Your task to perform on an android device: turn on javascript in the chrome app Image 0: 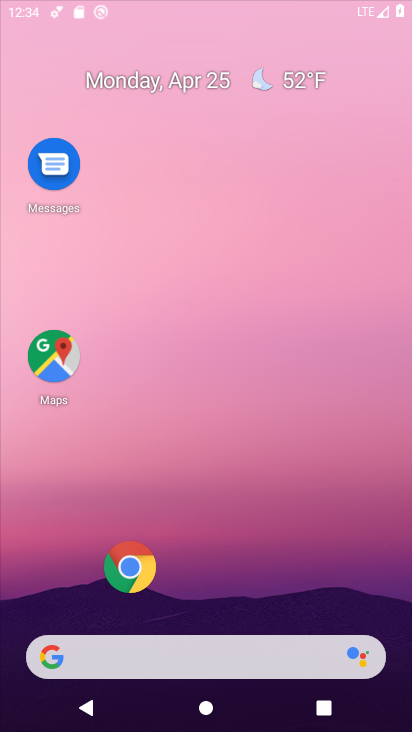
Step 0: drag from (402, 77) to (378, 1)
Your task to perform on an android device: turn on javascript in the chrome app Image 1: 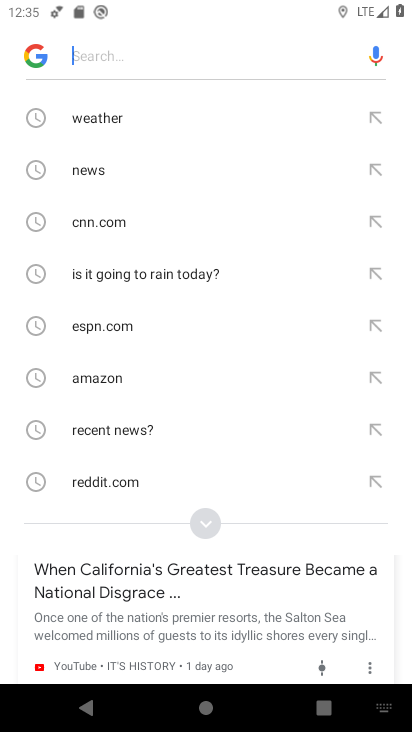
Step 1: press home button
Your task to perform on an android device: turn on javascript in the chrome app Image 2: 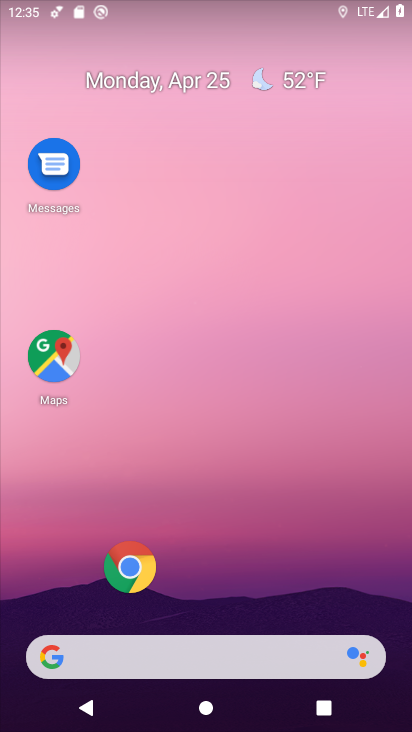
Step 2: drag from (217, 486) to (227, 148)
Your task to perform on an android device: turn on javascript in the chrome app Image 3: 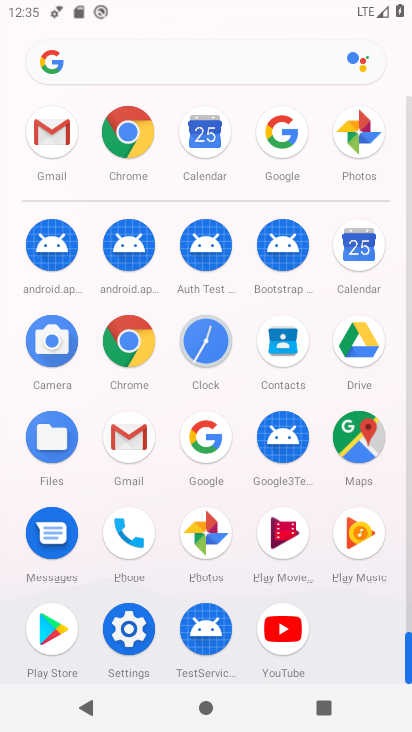
Step 3: click (122, 174)
Your task to perform on an android device: turn on javascript in the chrome app Image 4: 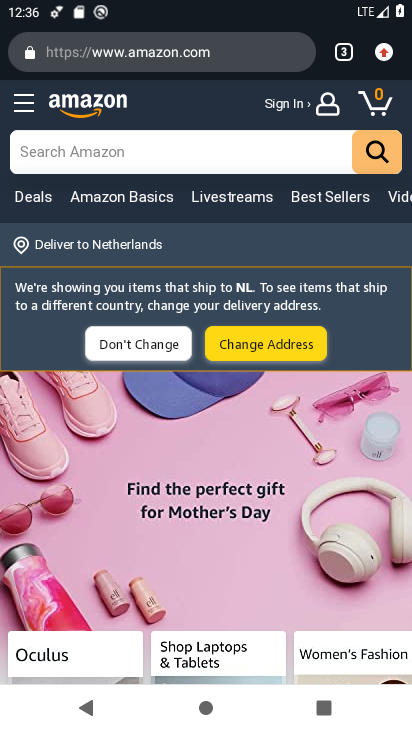
Step 4: click (380, 58)
Your task to perform on an android device: turn on javascript in the chrome app Image 5: 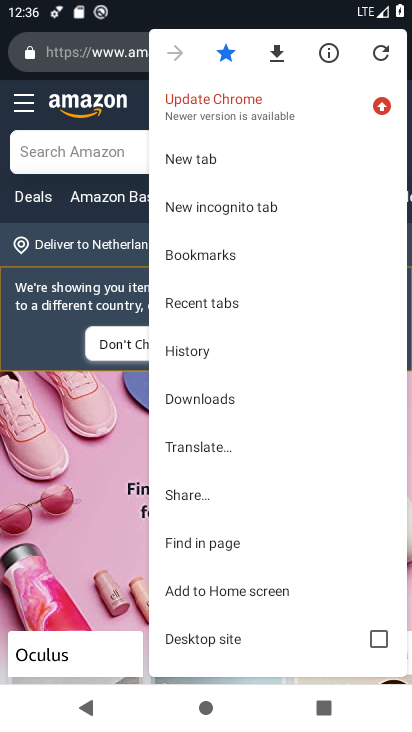
Step 5: drag from (204, 485) to (229, 294)
Your task to perform on an android device: turn on javascript in the chrome app Image 6: 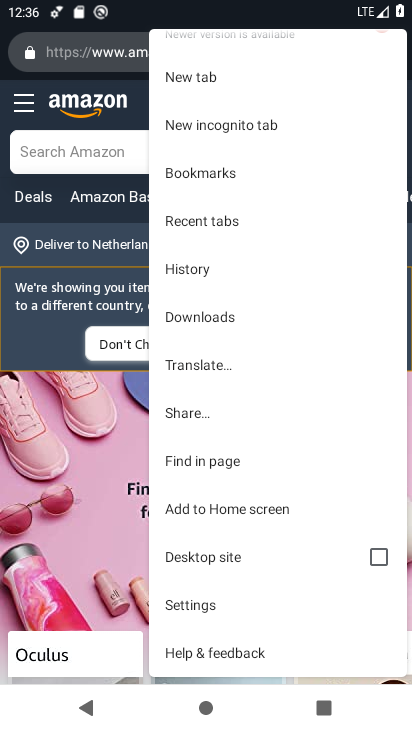
Step 6: click (250, 599)
Your task to perform on an android device: turn on javascript in the chrome app Image 7: 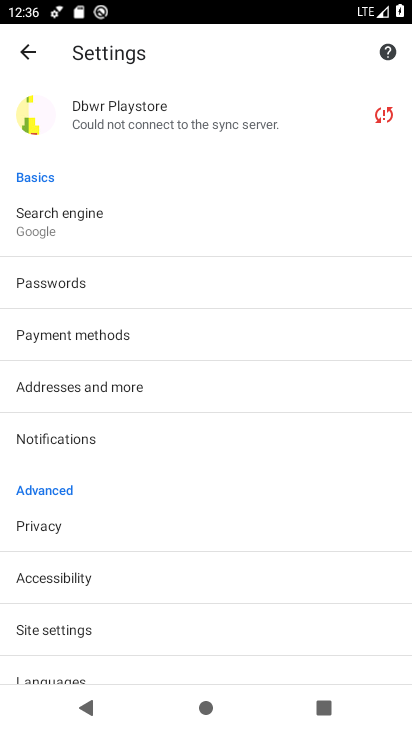
Step 7: drag from (160, 502) to (265, 247)
Your task to perform on an android device: turn on javascript in the chrome app Image 8: 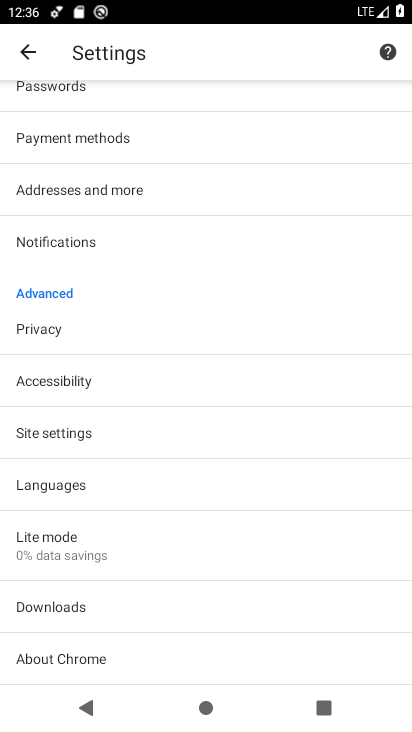
Step 8: click (94, 431)
Your task to perform on an android device: turn on javascript in the chrome app Image 9: 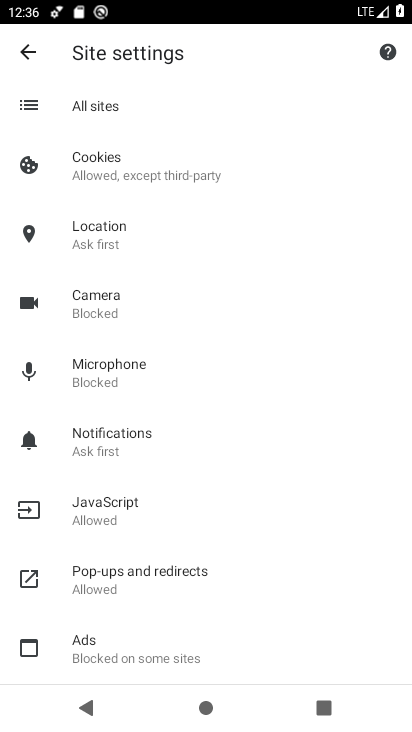
Step 9: click (142, 506)
Your task to perform on an android device: turn on javascript in the chrome app Image 10: 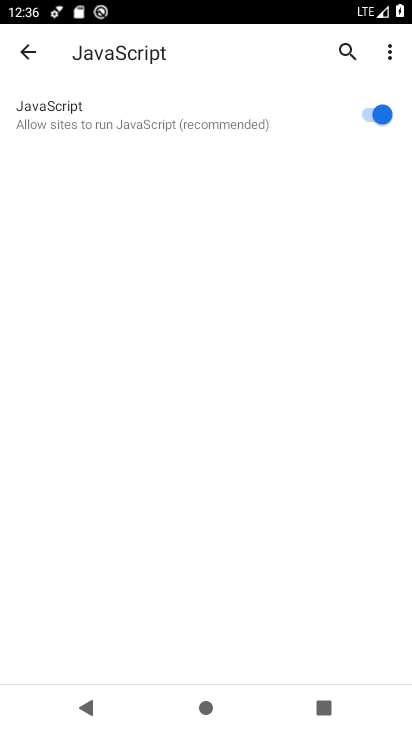
Step 10: task complete